Your task to perform on an android device: Open settings Image 0: 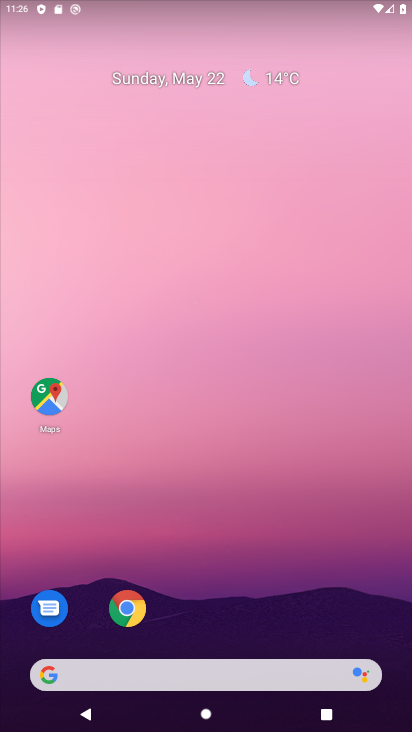
Step 0: drag from (226, 608) to (167, 183)
Your task to perform on an android device: Open settings Image 1: 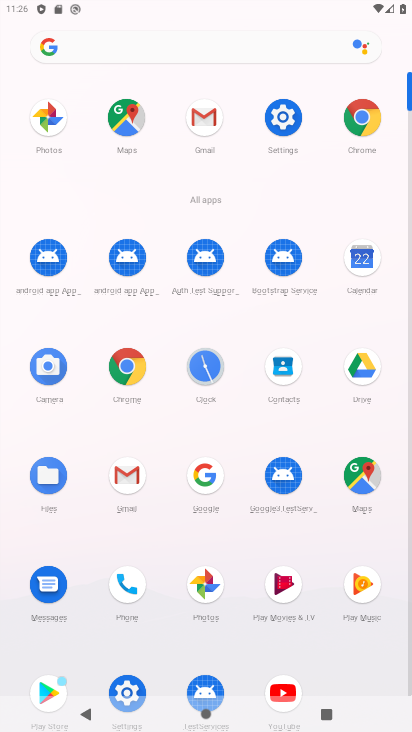
Step 1: click (296, 123)
Your task to perform on an android device: Open settings Image 2: 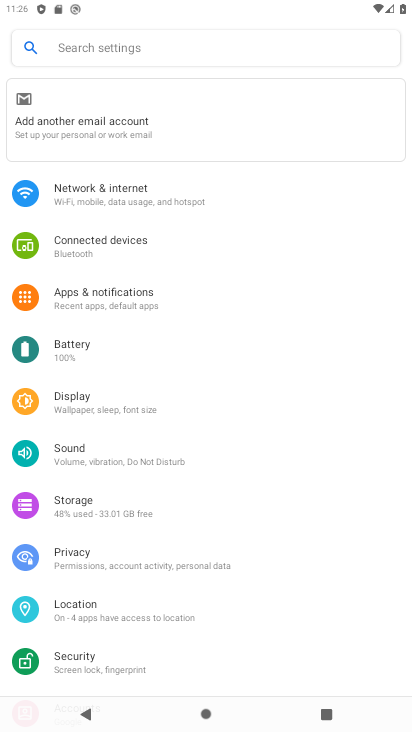
Step 2: task complete